Your task to perform on an android device: find photos in the google photos app Image 0: 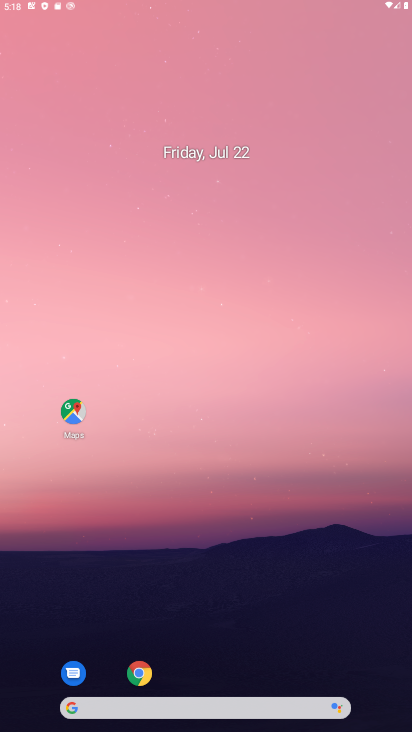
Step 0: press home button
Your task to perform on an android device: find photos in the google photos app Image 1: 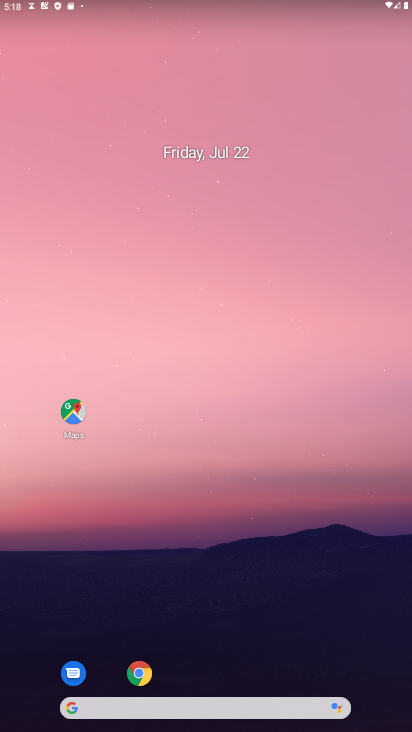
Step 1: drag from (299, 642) to (270, 167)
Your task to perform on an android device: find photos in the google photos app Image 2: 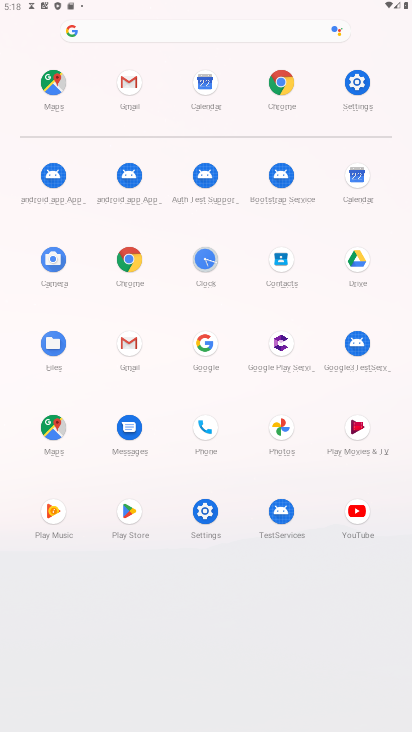
Step 2: click (289, 425)
Your task to perform on an android device: find photos in the google photos app Image 3: 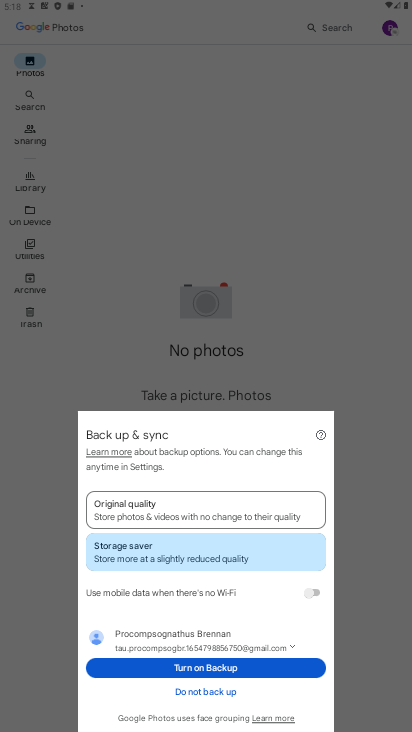
Step 3: click (216, 683)
Your task to perform on an android device: find photos in the google photos app Image 4: 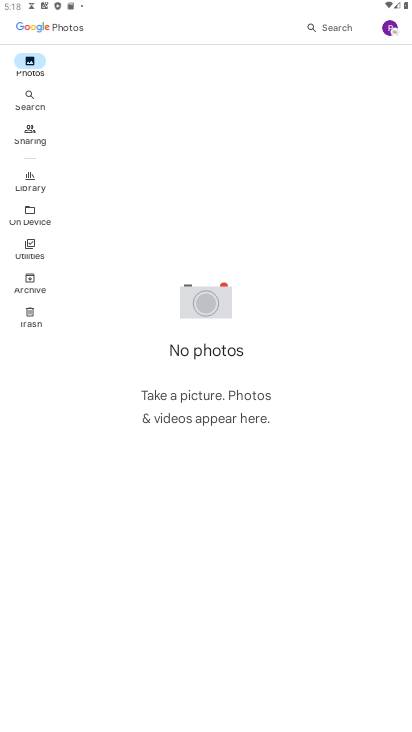
Step 4: click (27, 80)
Your task to perform on an android device: find photos in the google photos app Image 5: 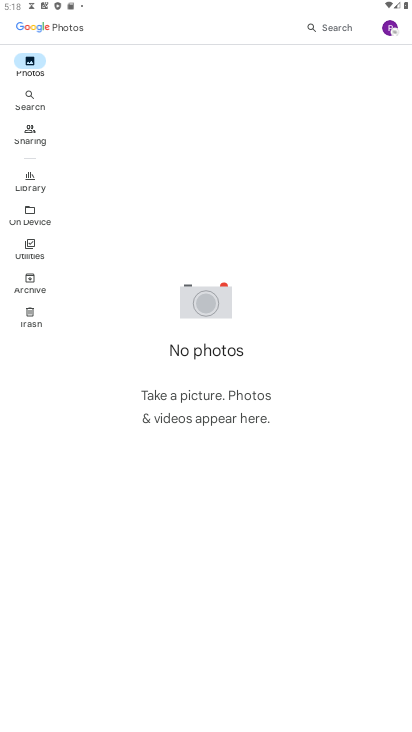
Step 5: task complete